Your task to perform on an android device: delete a single message in the gmail app Image 0: 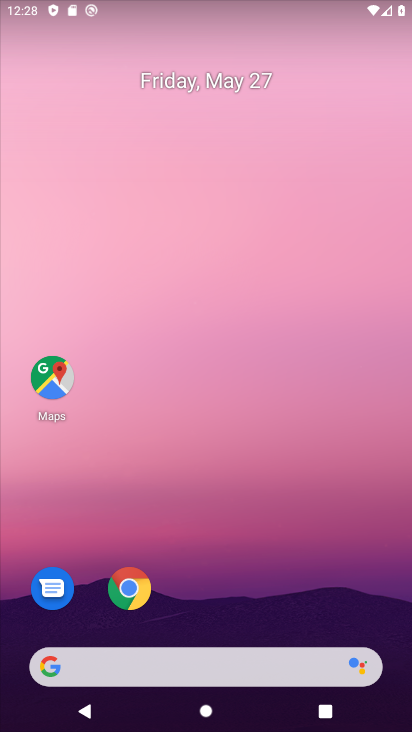
Step 0: press home button
Your task to perform on an android device: delete a single message in the gmail app Image 1: 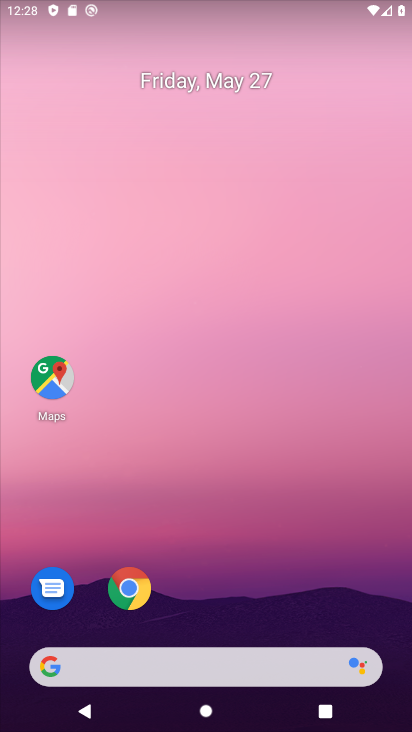
Step 1: drag from (233, 633) to (257, 174)
Your task to perform on an android device: delete a single message in the gmail app Image 2: 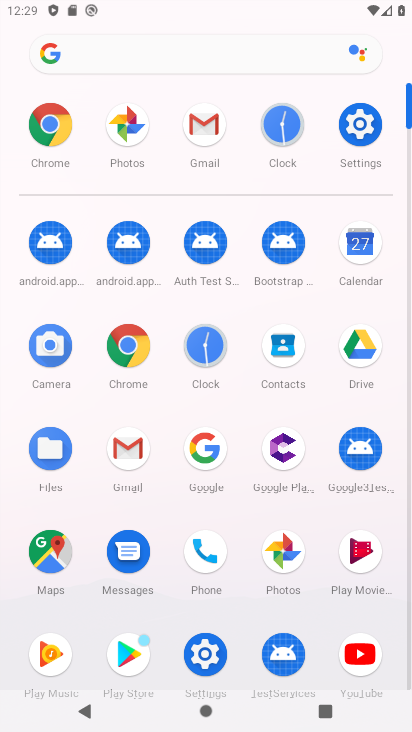
Step 2: click (201, 118)
Your task to perform on an android device: delete a single message in the gmail app Image 3: 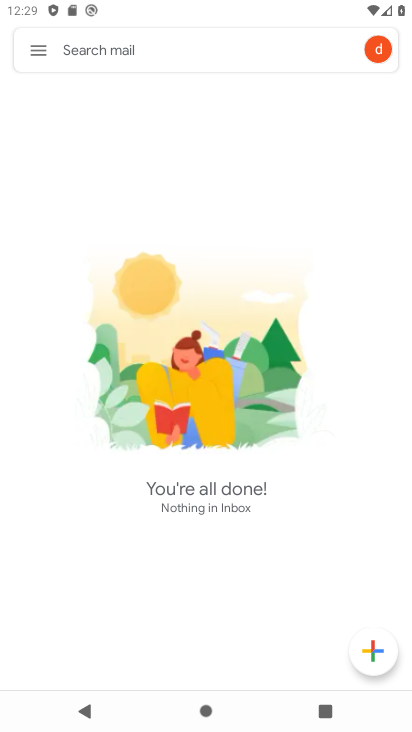
Step 3: task complete